Your task to perform on an android device: Go to Google Image 0: 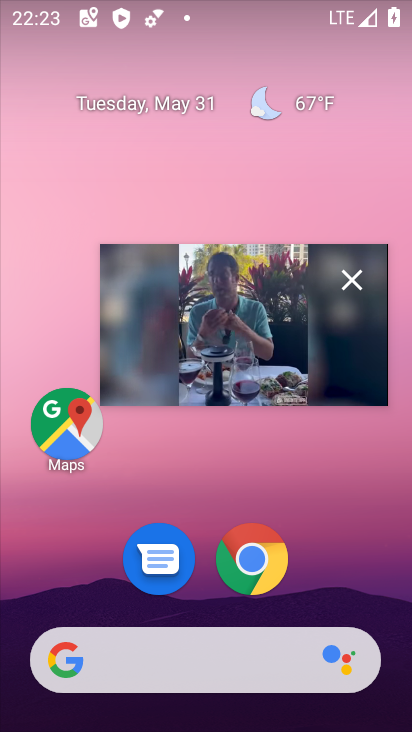
Step 0: click (366, 276)
Your task to perform on an android device: Go to Google Image 1: 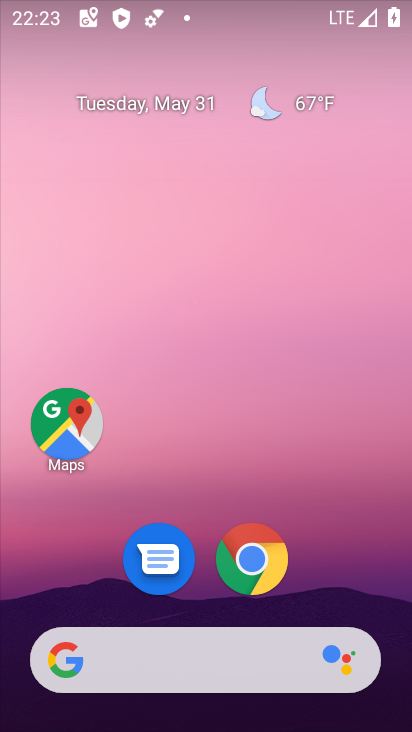
Step 1: drag from (328, 560) to (282, 68)
Your task to perform on an android device: Go to Google Image 2: 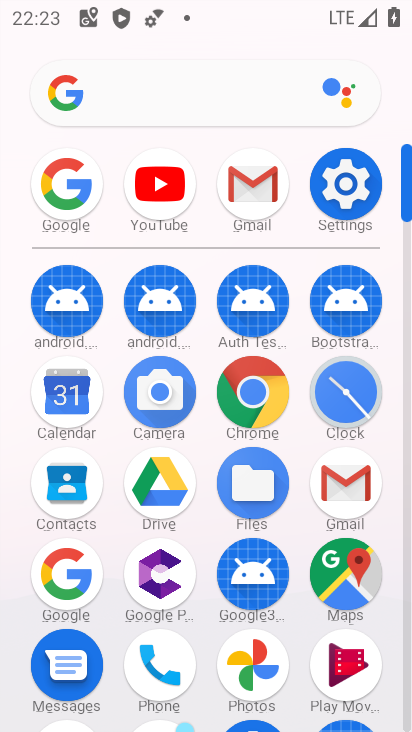
Step 2: click (70, 188)
Your task to perform on an android device: Go to Google Image 3: 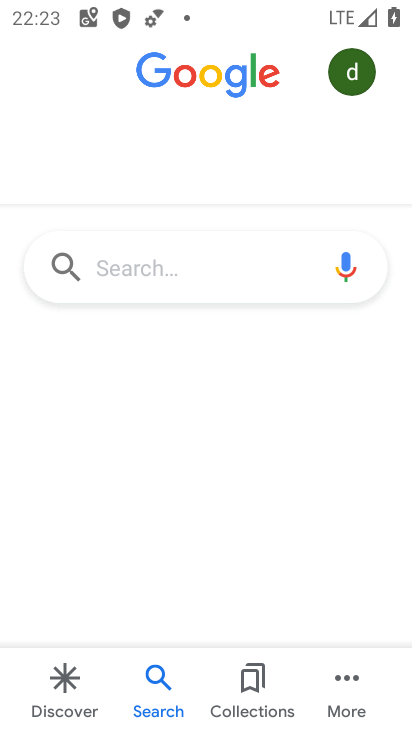
Step 3: task complete